Your task to perform on an android device: Open settings on Google Maps Image 0: 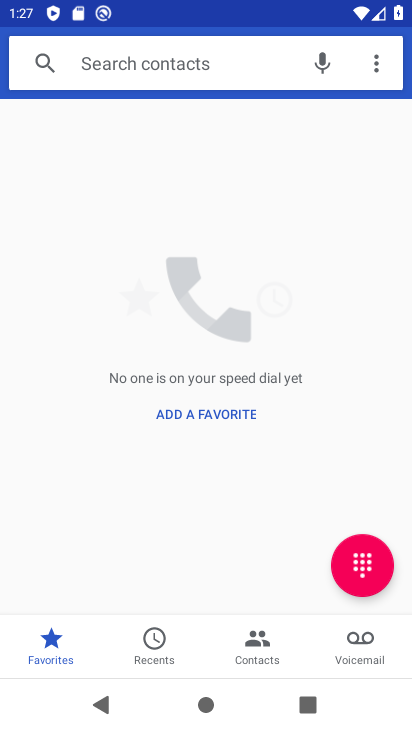
Step 0: press home button
Your task to perform on an android device: Open settings on Google Maps Image 1: 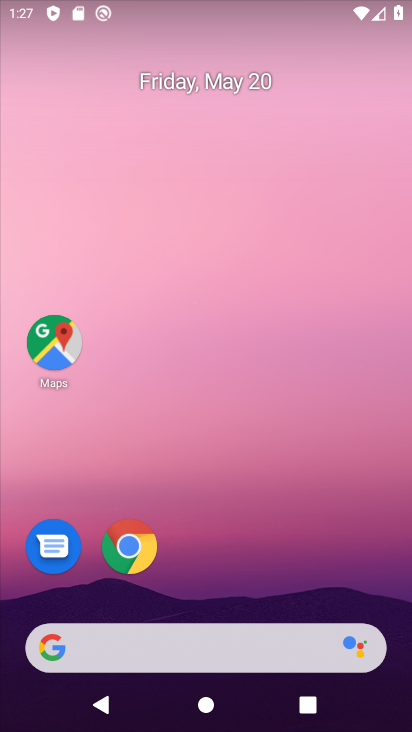
Step 1: click (68, 337)
Your task to perform on an android device: Open settings on Google Maps Image 2: 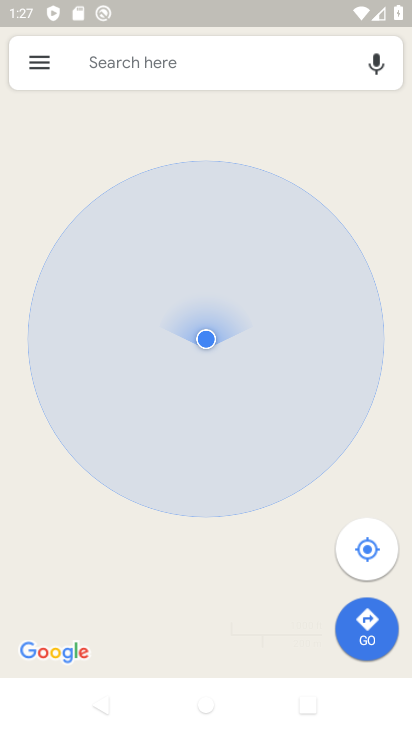
Step 2: click (37, 48)
Your task to perform on an android device: Open settings on Google Maps Image 3: 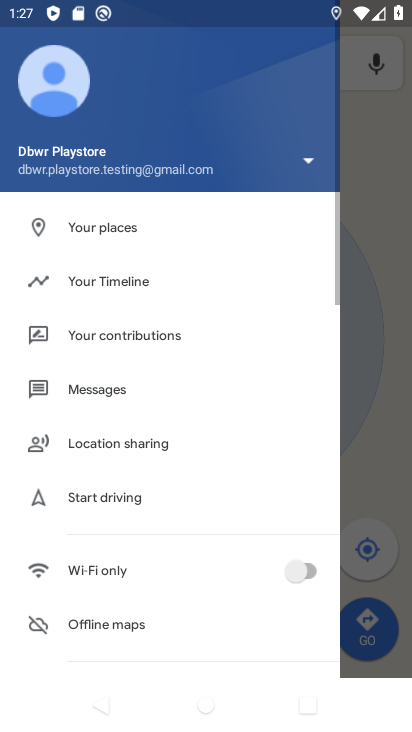
Step 3: drag from (140, 618) to (109, 186)
Your task to perform on an android device: Open settings on Google Maps Image 4: 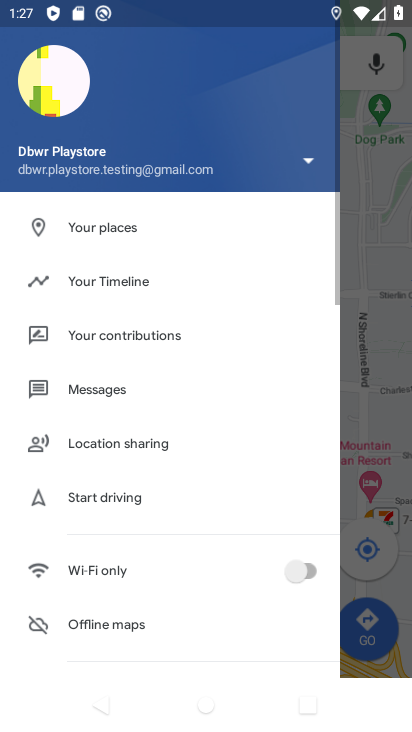
Step 4: drag from (187, 604) to (229, 222)
Your task to perform on an android device: Open settings on Google Maps Image 5: 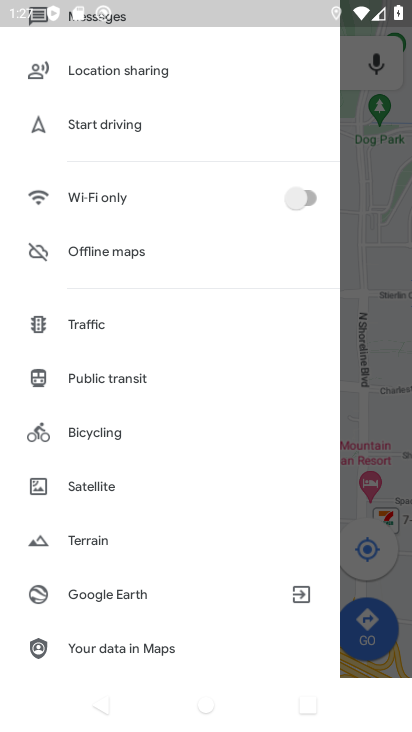
Step 5: drag from (201, 618) to (207, 179)
Your task to perform on an android device: Open settings on Google Maps Image 6: 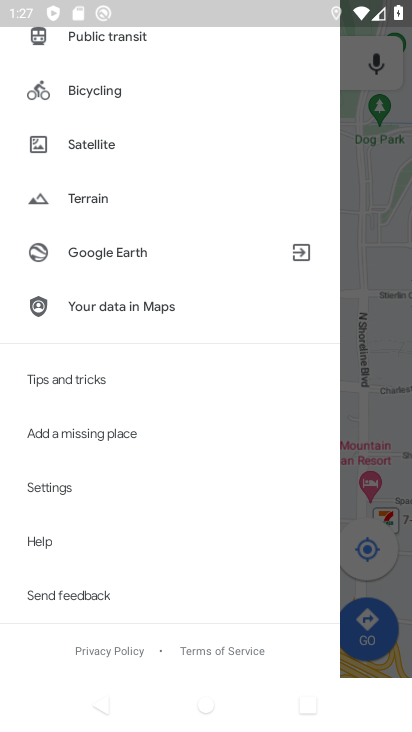
Step 6: click (133, 487)
Your task to perform on an android device: Open settings on Google Maps Image 7: 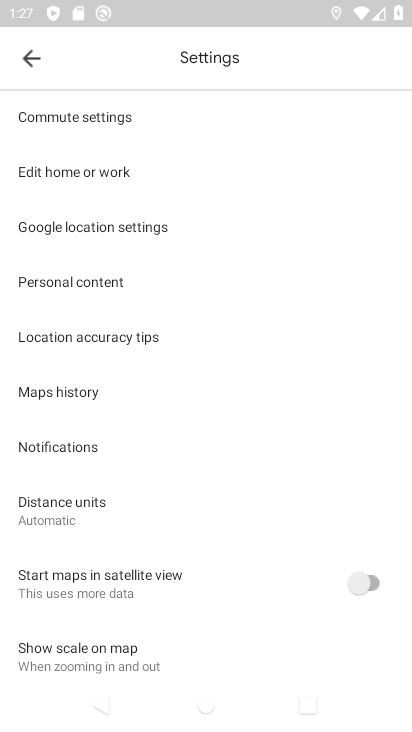
Step 7: task complete